Your task to perform on an android device: Go to CNN.com Image 0: 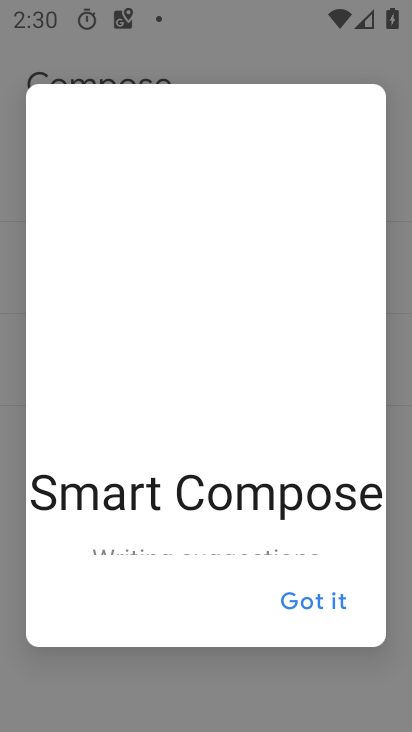
Step 0: press home button
Your task to perform on an android device: Go to CNN.com Image 1: 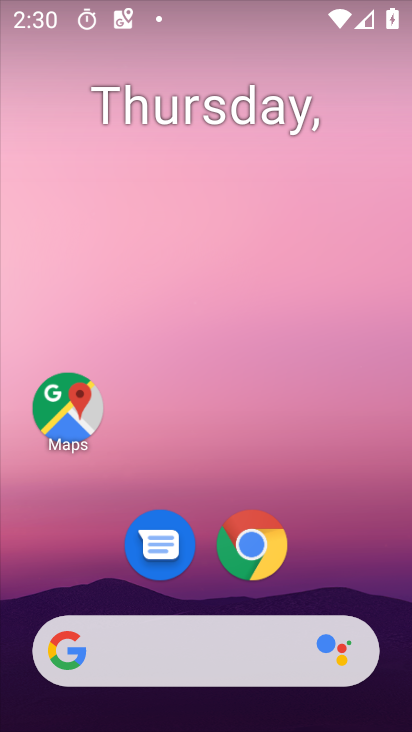
Step 1: click (252, 546)
Your task to perform on an android device: Go to CNN.com Image 2: 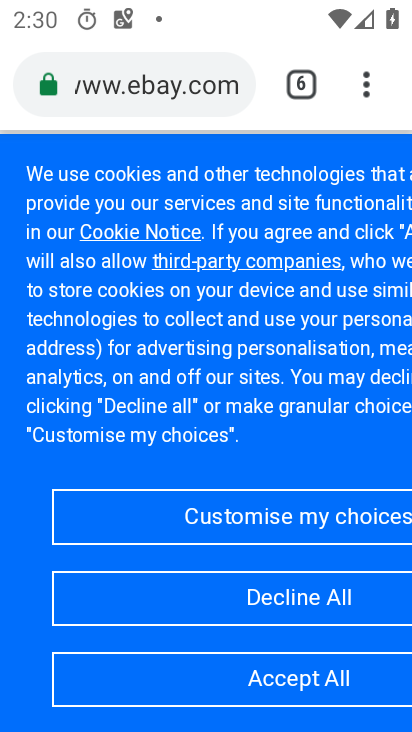
Step 2: click (368, 92)
Your task to perform on an android device: Go to CNN.com Image 3: 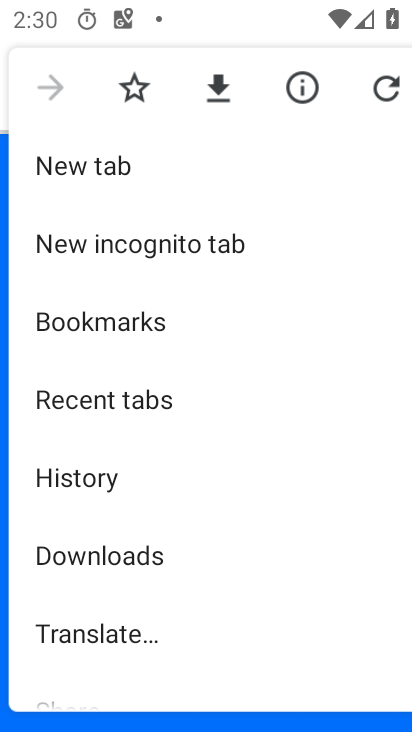
Step 3: click (106, 166)
Your task to perform on an android device: Go to CNN.com Image 4: 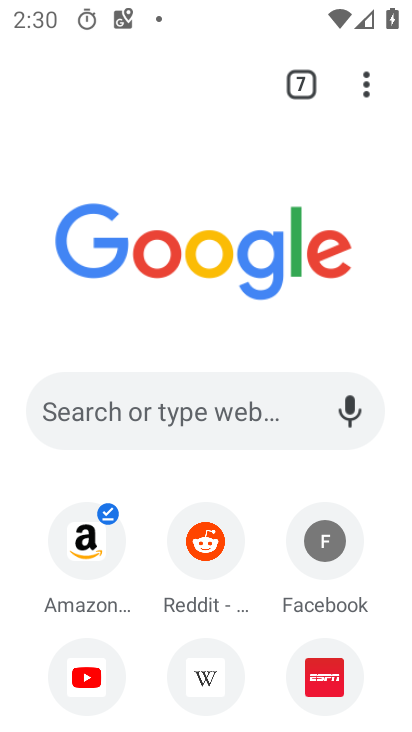
Step 4: click (184, 411)
Your task to perform on an android device: Go to CNN.com Image 5: 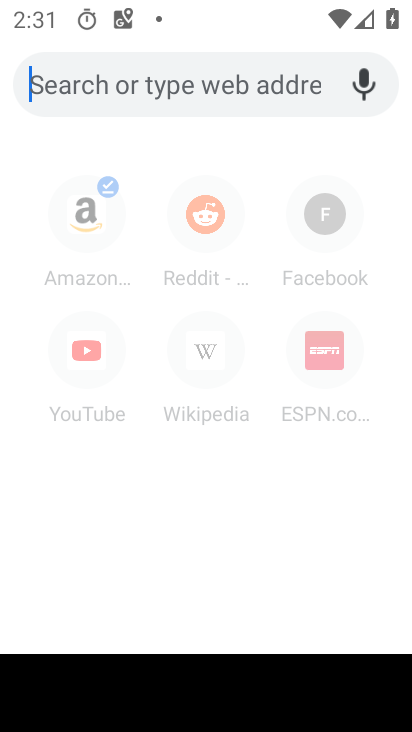
Step 5: type "CNN.com"
Your task to perform on an android device: Go to CNN.com Image 6: 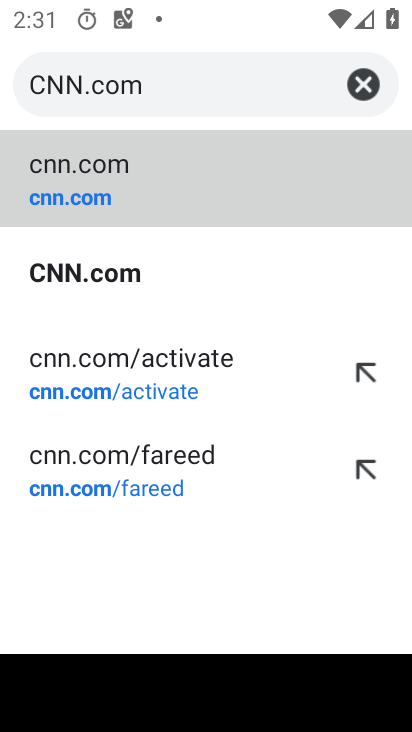
Step 6: click (77, 180)
Your task to perform on an android device: Go to CNN.com Image 7: 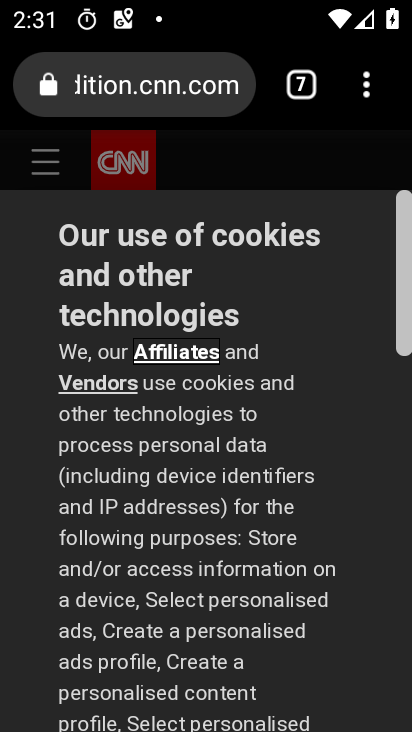
Step 7: task complete